Your task to perform on an android device: Open battery settings Image 0: 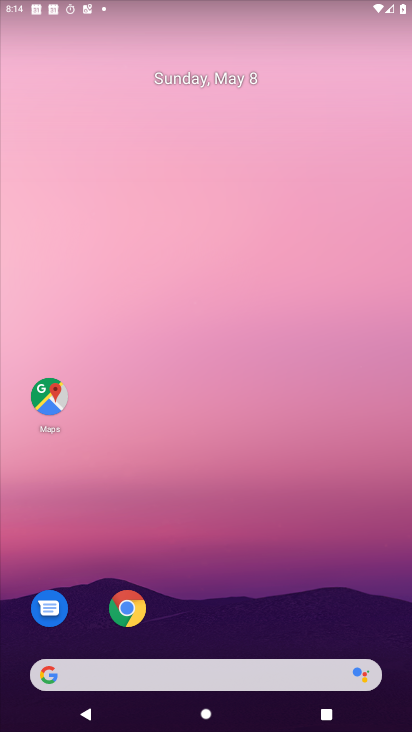
Step 0: drag from (198, 550) to (179, 282)
Your task to perform on an android device: Open battery settings Image 1: 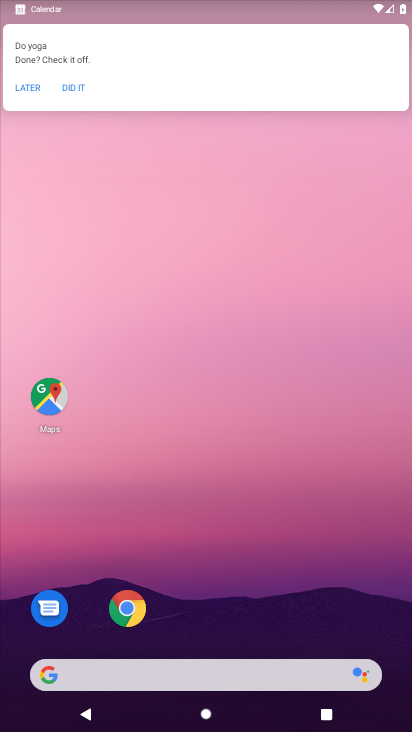
Step 1: drag from (243, 583) to (254, 121)
Your task to perform on an android device: Open battery settings Image 2: 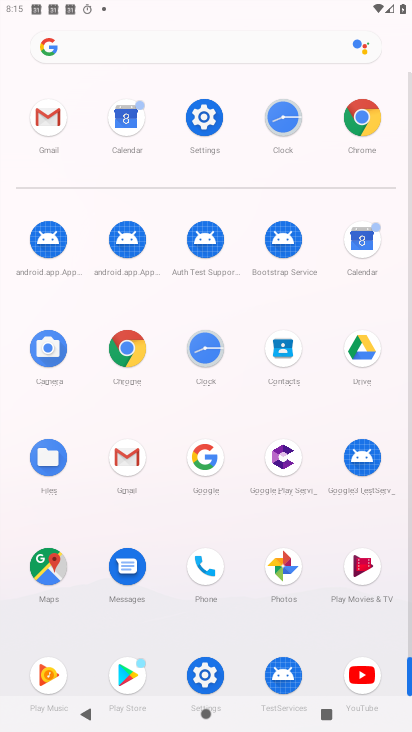
Step 2: click (210, 113)
Your task to perform on an android device: Open battery settings Image 3: 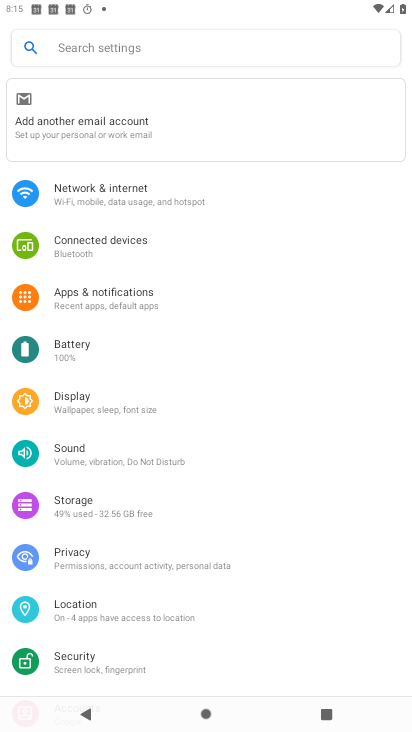
Step 3: click (108, 363)
Your task to perform on an android device: Open battery settings Image 4: 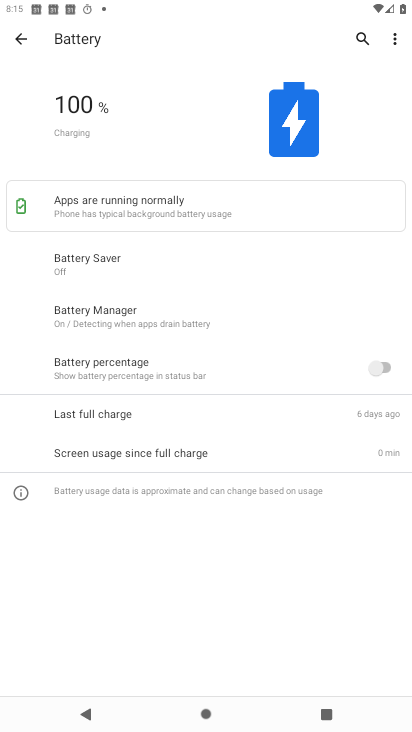
Step 4: task complete